Your task to perform on an android device: Add logitech g502 to the cart on walmart Image 0: 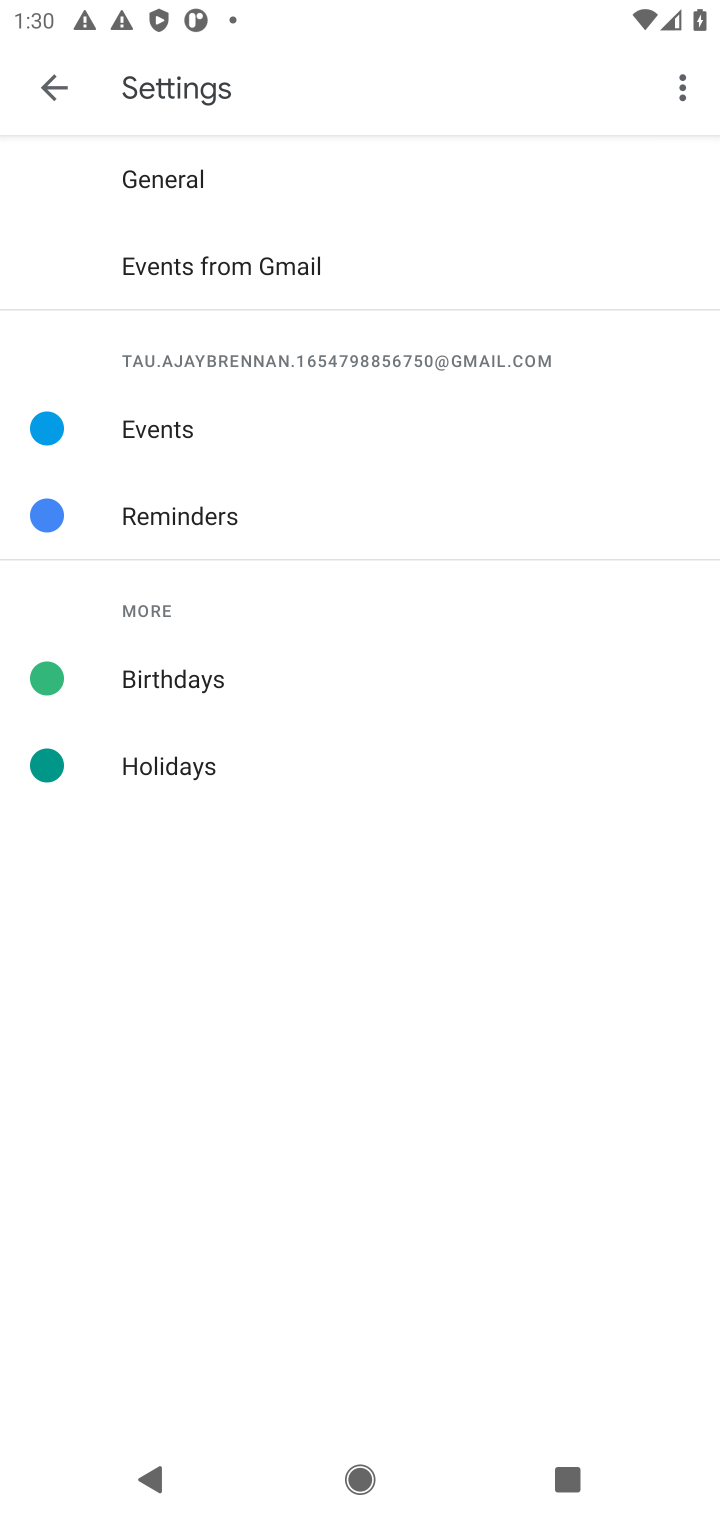
Step 0: press home button
Your task to perform on an android device: Add logitech g502 to the cart on walmart Image 1: 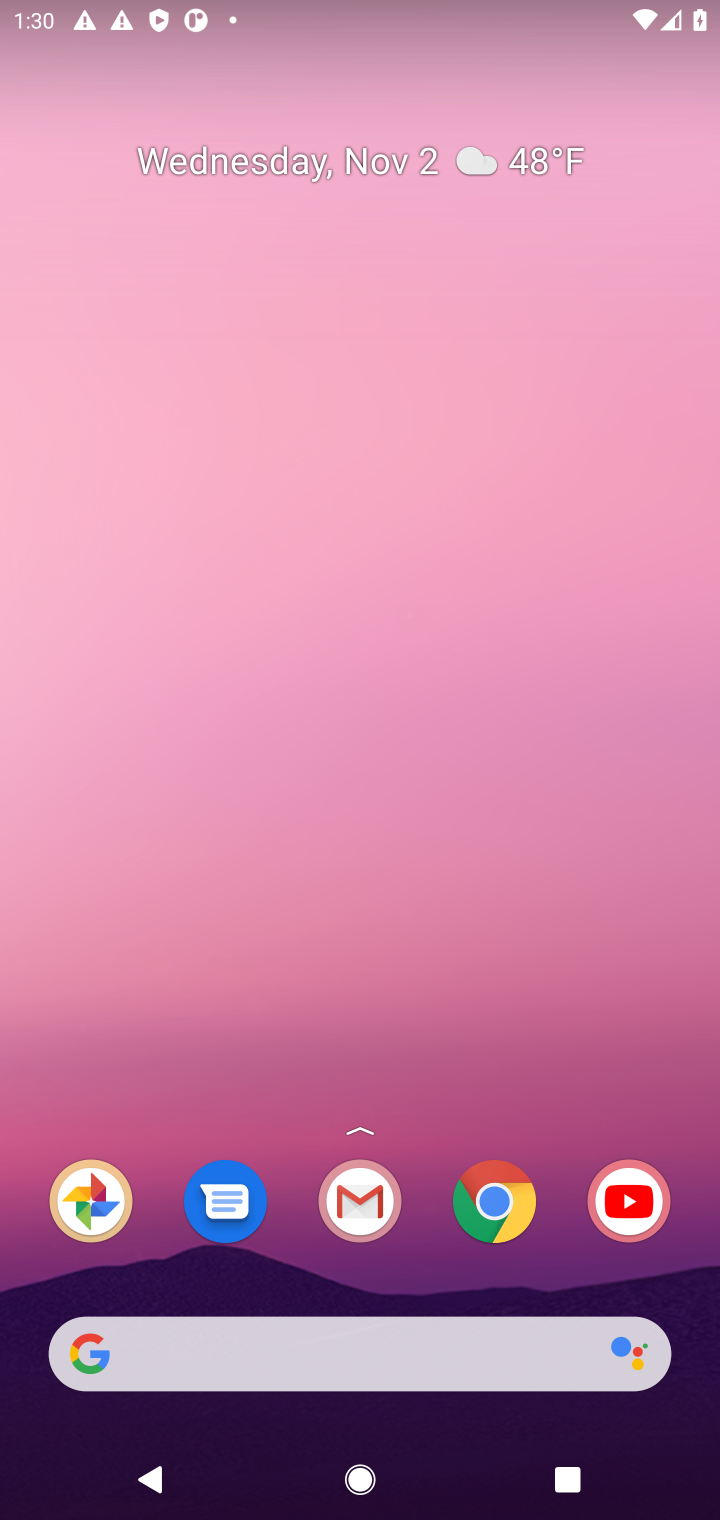
Step 1: click (497, 1191)
Your task to perform on an android device: Add logitech g502 to the cart on walmart Image 2: 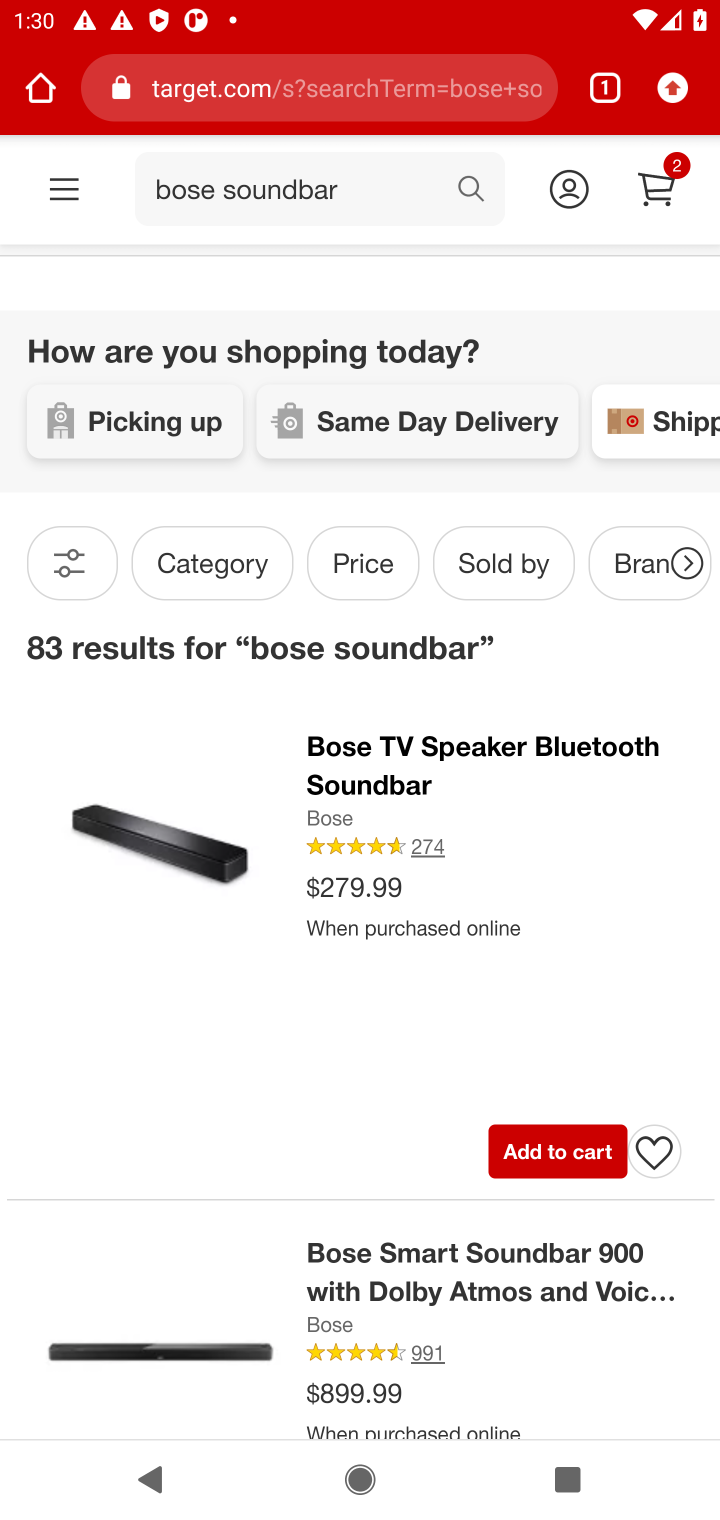
Step 2: click (338, 77)
Your task to perform on an android device: Add logitech g502 to the cart on walmart Image 3: 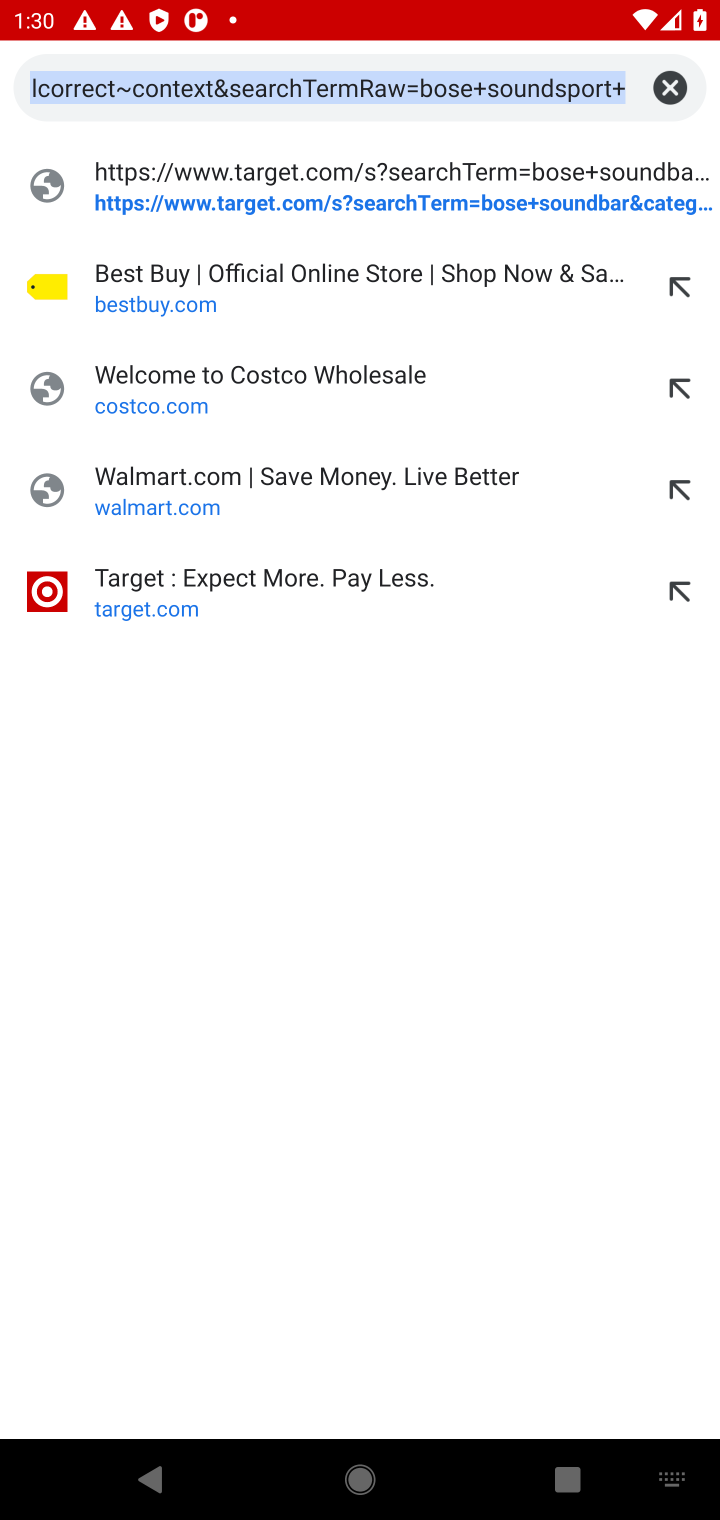
Step 3: click (226, 481)
Your task to perform on an android device: Add logitech g502 to the cart on walmart Image 4: 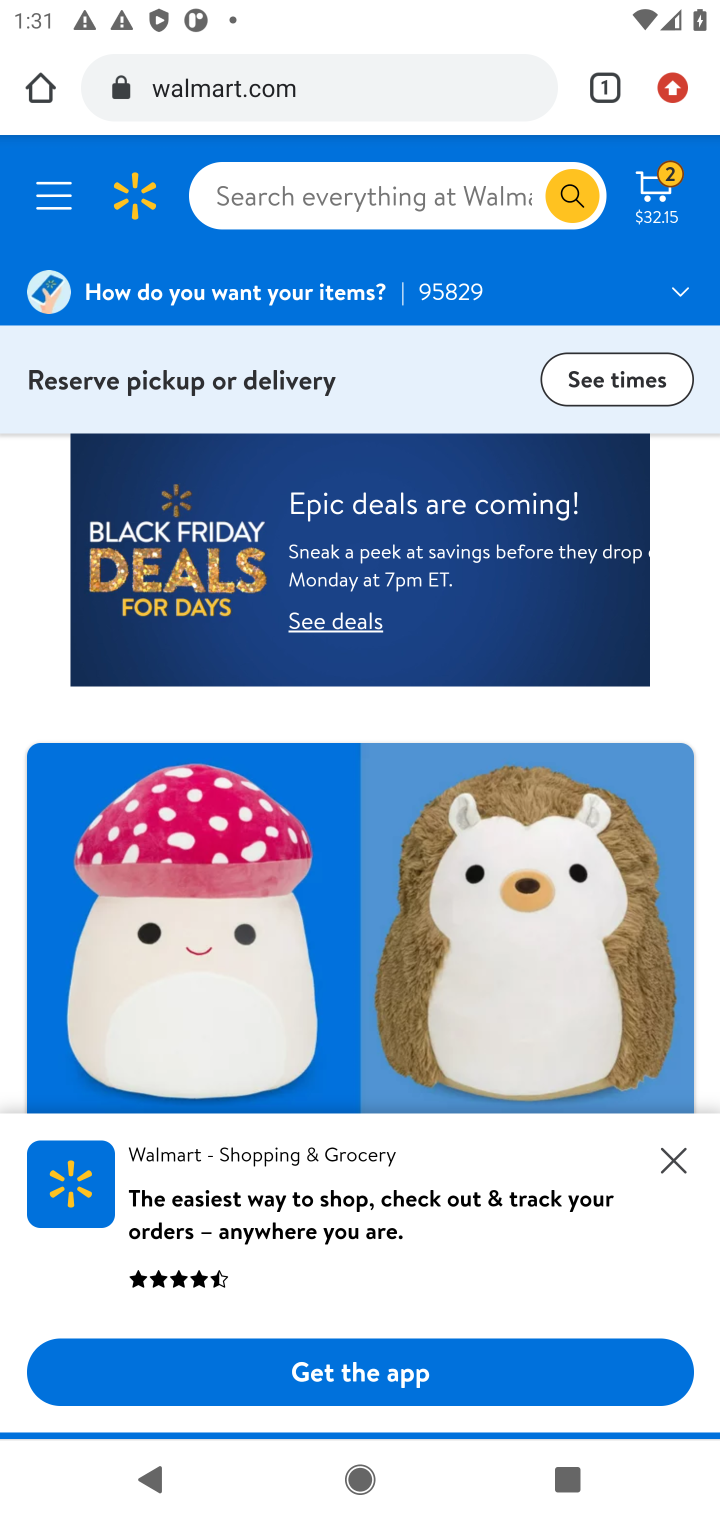
Step 4: click (448, 181)
Your task to perform on an android device: Add logitech g502 to the cart on walmart Image 5: 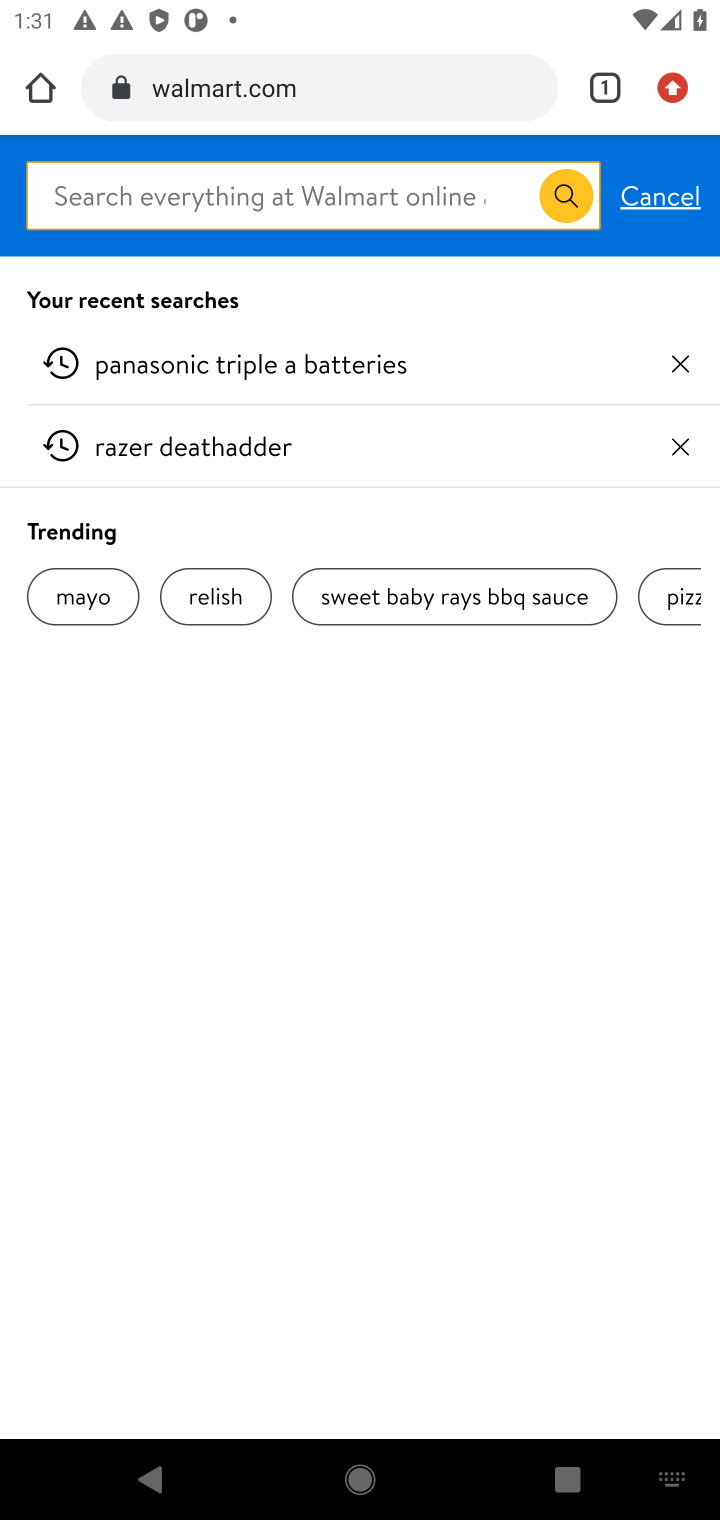
Step 5: type "logitech g502"
Your task to perform on an android device: Add logitech g502 to the cart on walmart Image 6: 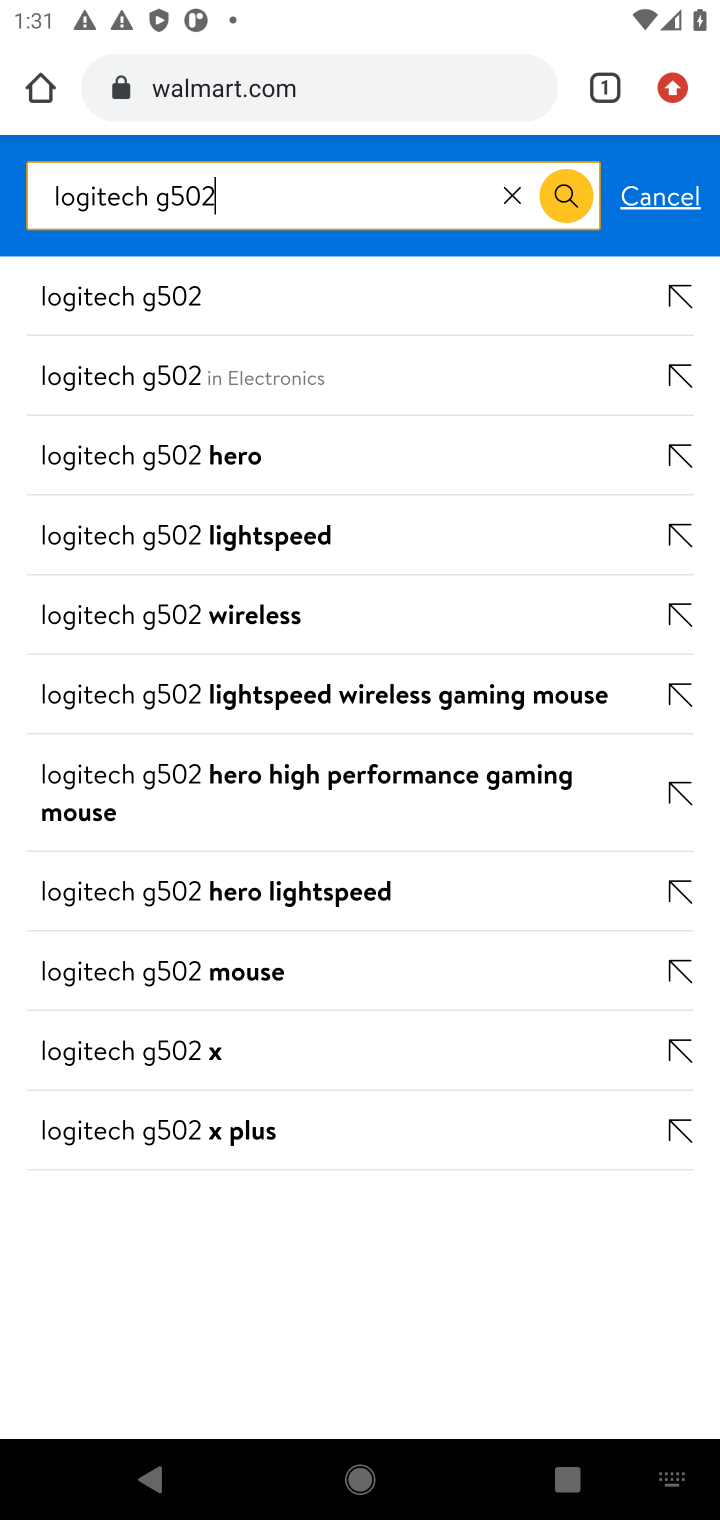
Step 6: click (65, 292)
Your task to perform on an android device: Add logitech g502 to the cart on walmart Image 7: 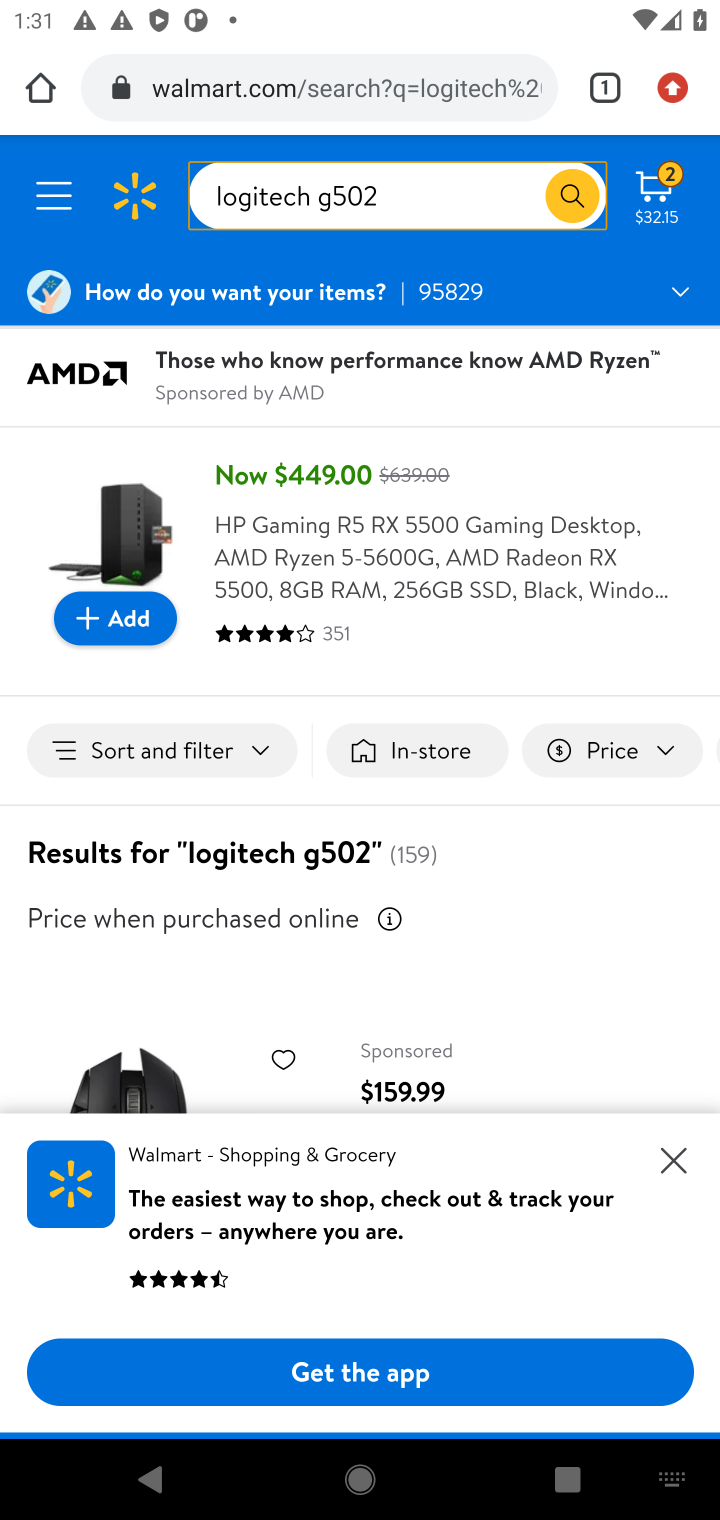
Step 7: drag from (539, 942) to (525, 529)
Your task to perform on an android device: Add logitech g502 to the cart on walmart Image 8: 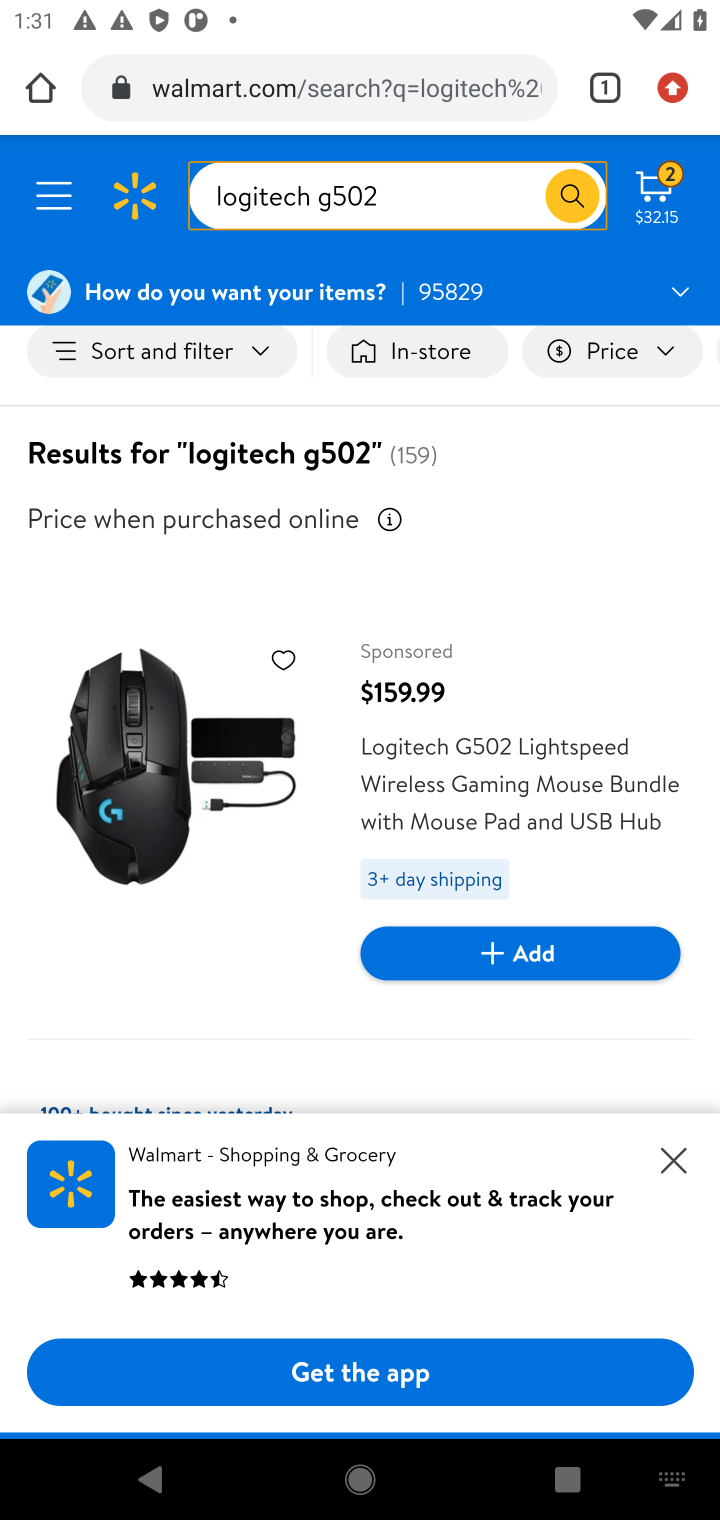
Step 8: click (167, 769)
Your task to perform on an android device: Add logitech g502 to the cart on walmart Image 9: 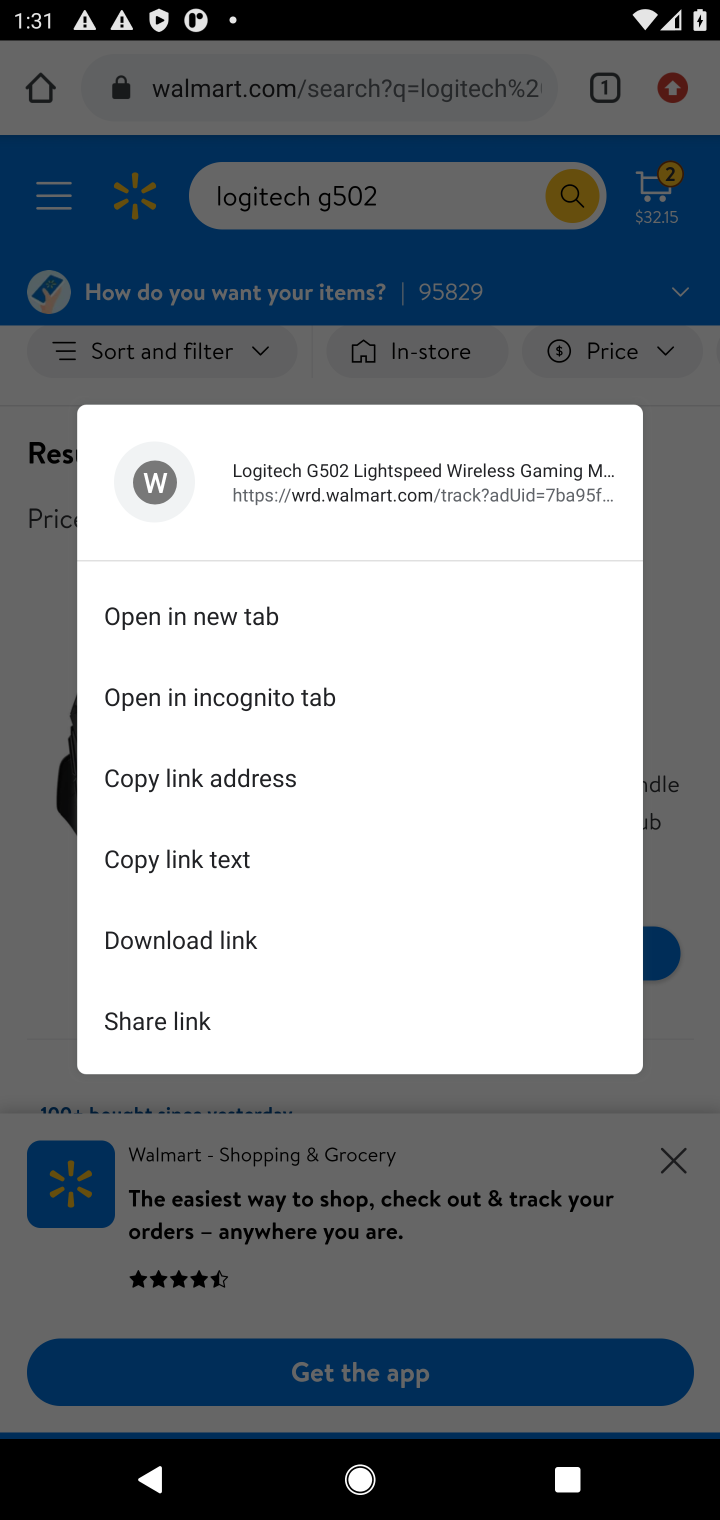
Step 9: drag from (503, 1126) to (594, 281)
Your task to perform on an android device: Add logitech g502 to the cart on walmart Image 10: 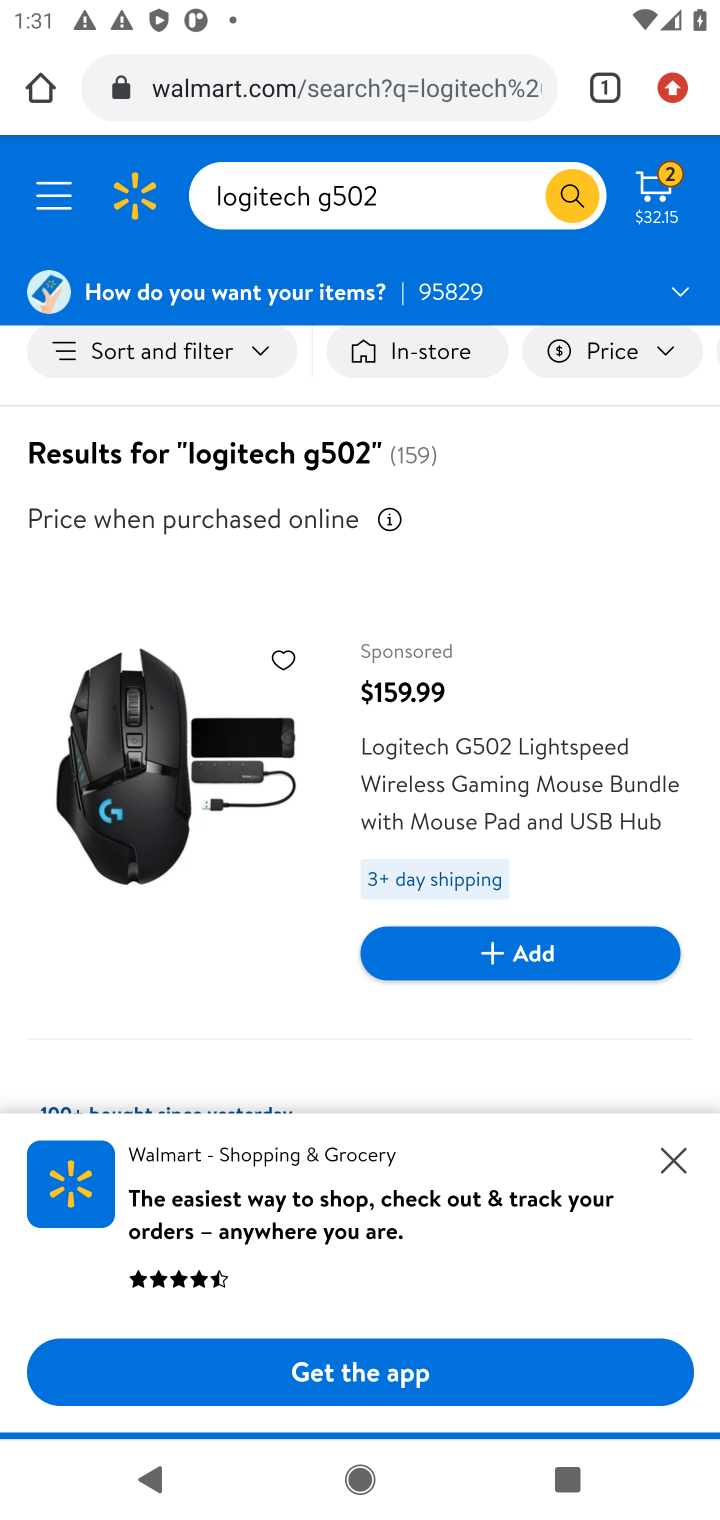
Step 10: click (594, 281)
Your task to perform on an android device: Add logitech g502 to the cart on walmart Image 11: 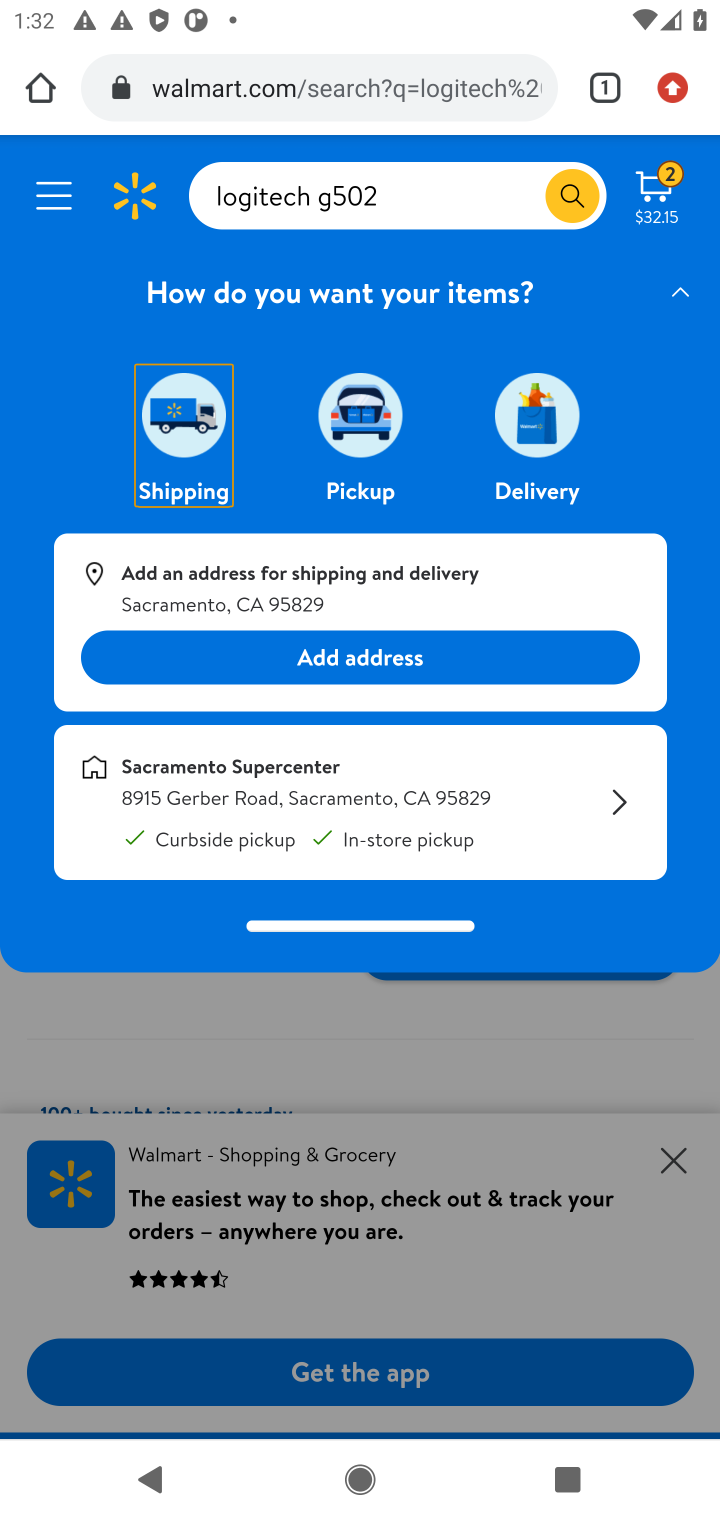
Step 11: click (675, 1152)
Your task to perform on an android device: Add logitech g502 to the cart on walmart Image 12: 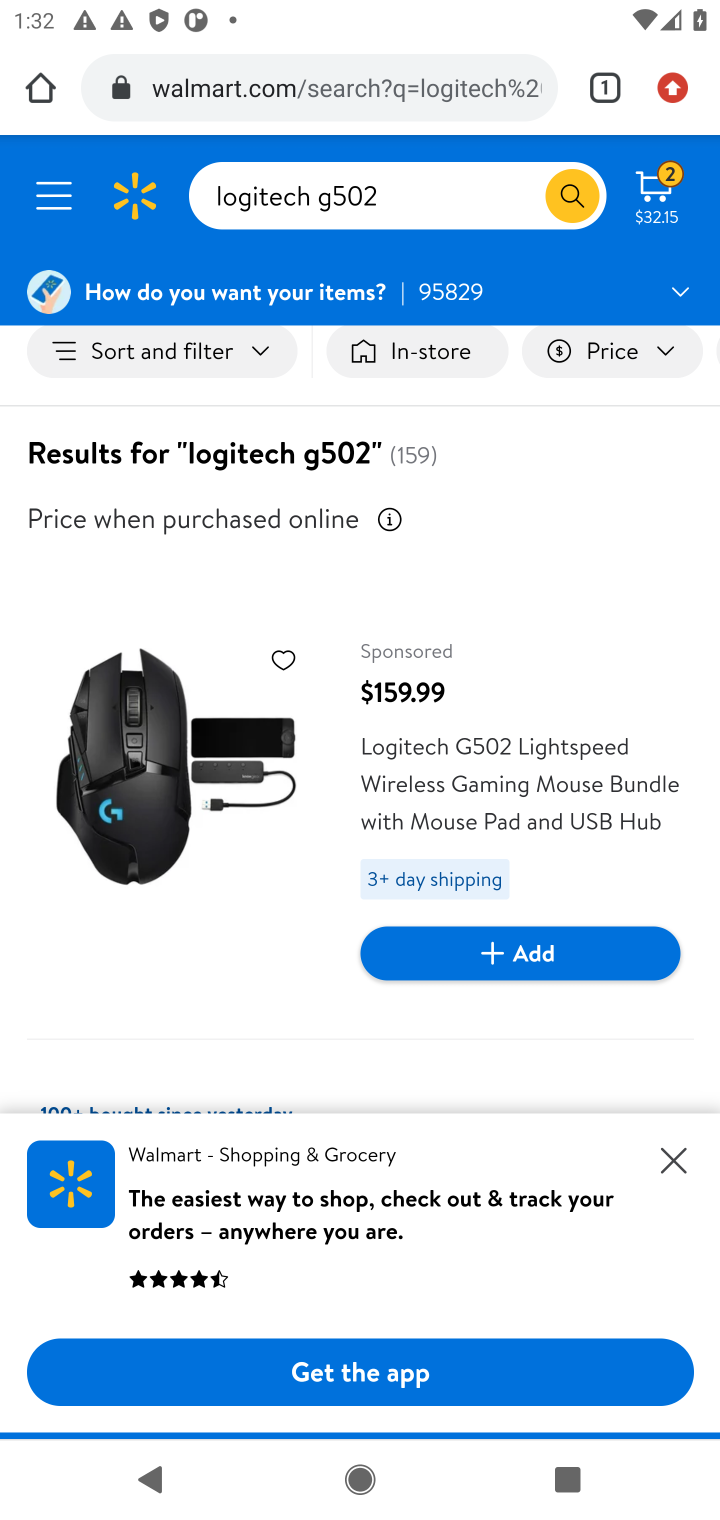
Step 12: click (676, 1149)
Your task to perform on an android device: Add logitech g502 to the cart on walmart Image 13: 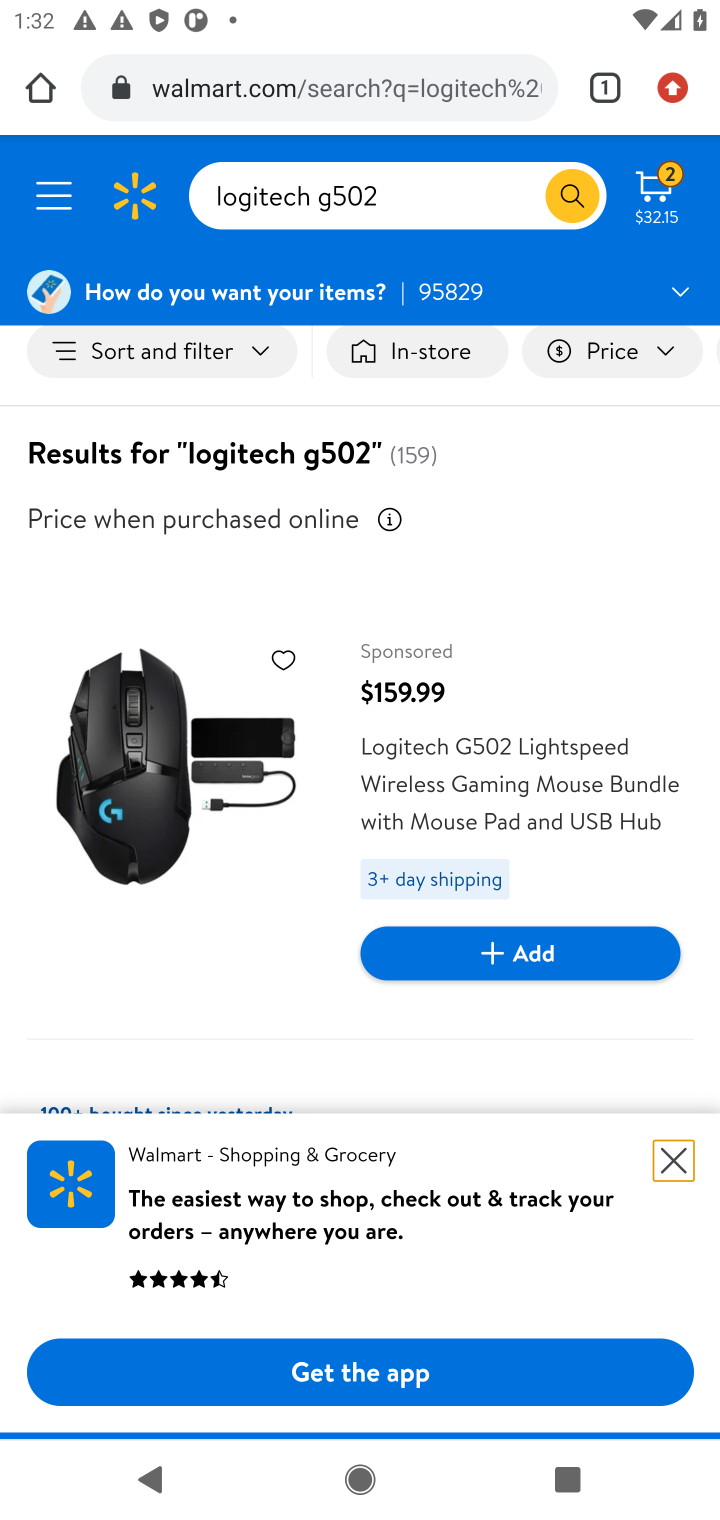
Step 13: click (539, 951)
Your task to perform on an android device: Add logitech g502 to the cart on walmart Image 14: 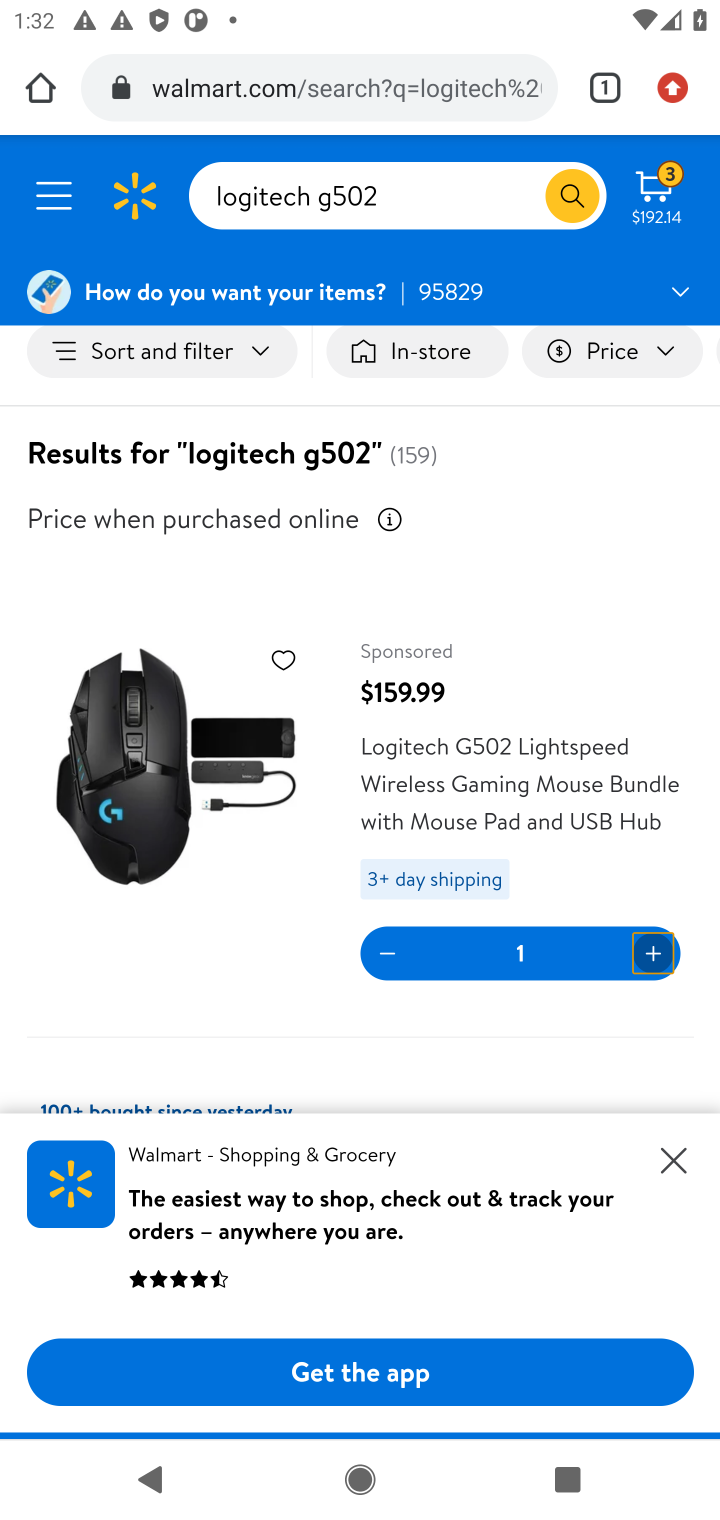
Step 14: click (668, 1161)
Your task to perform on an android device: Add logitech g502 to the cart on walmart Image 15: 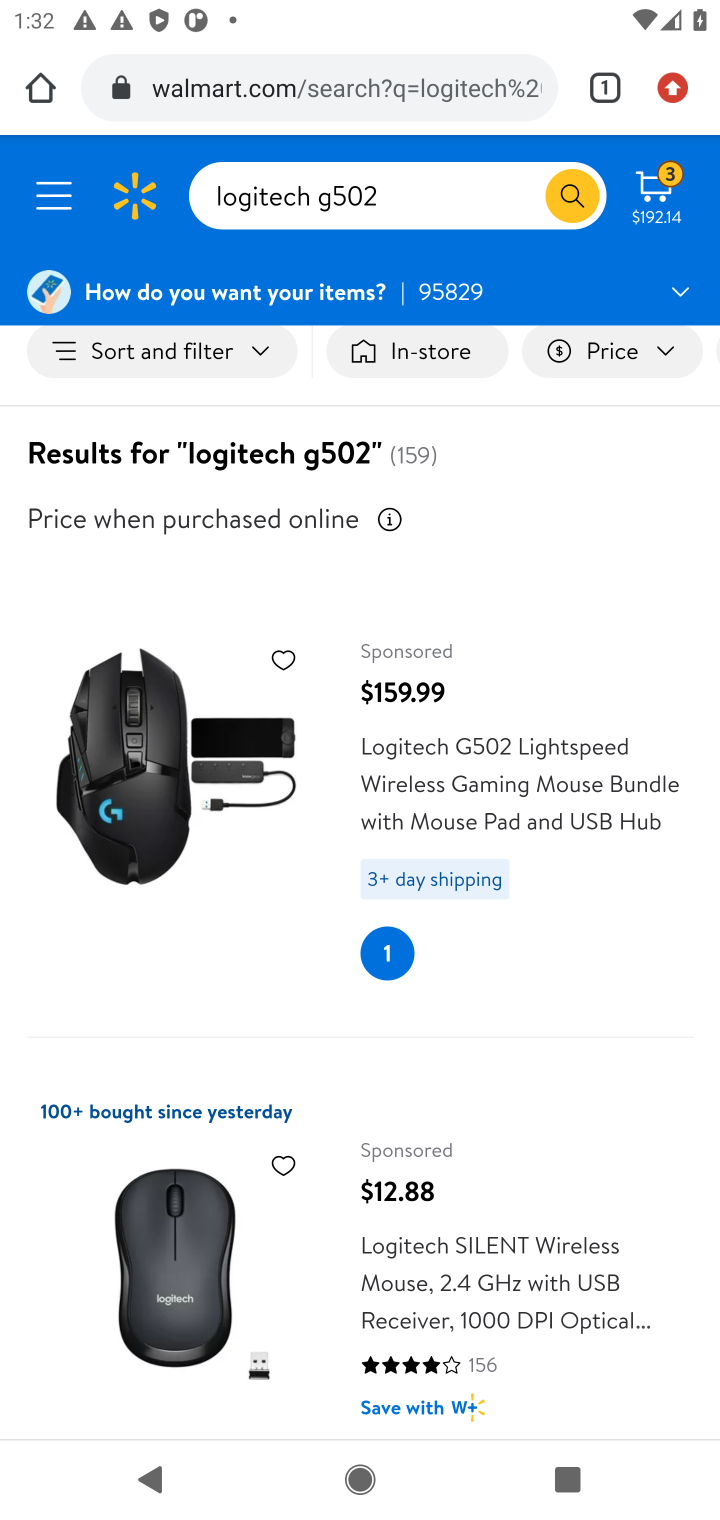
Step 15: drag from (458, 1129) to (439, 1204)
Your task to perform on an android device: Add logitech g502 to the cart on walmart Image 16: 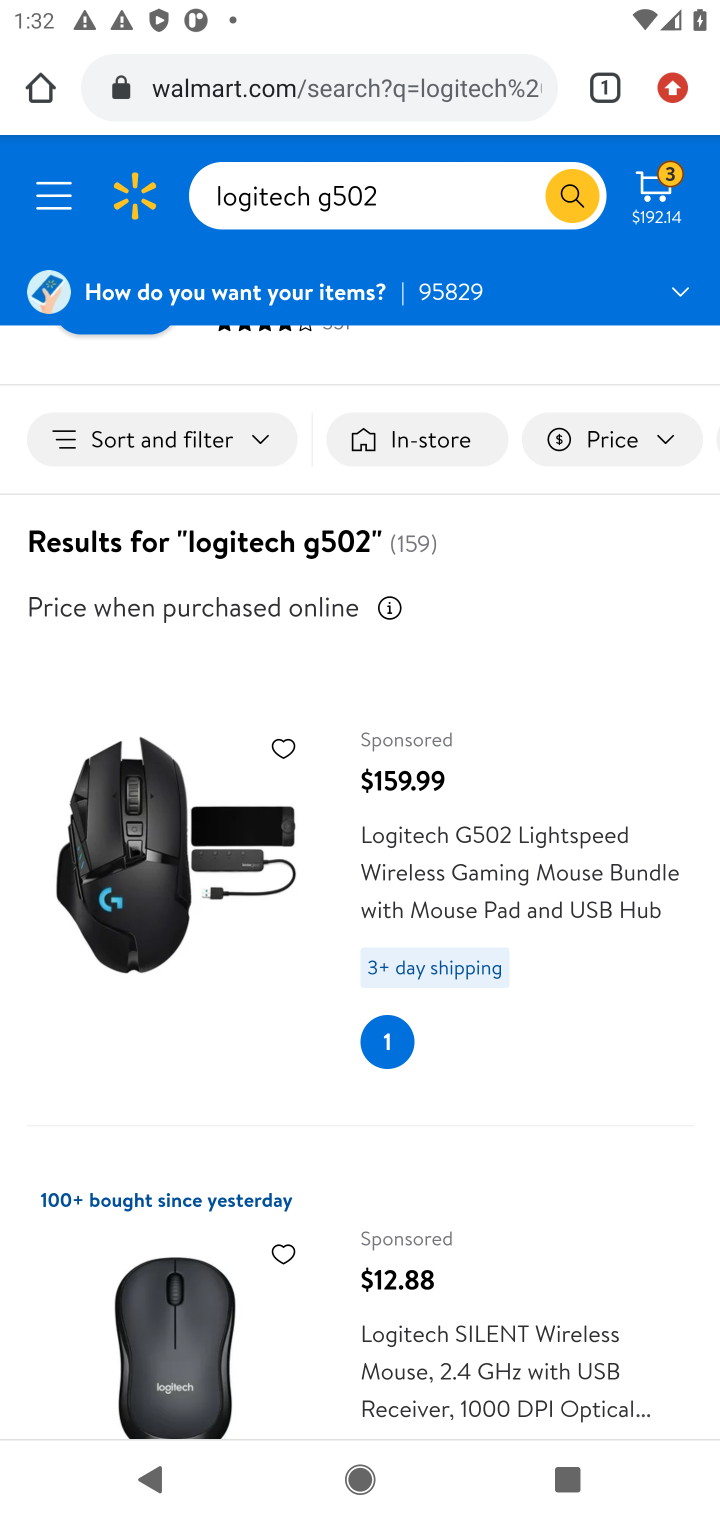
Step 16: click (147, 861)
Your task to perform on an android device: Add logitech g502 to the cart on walmart Image 17: 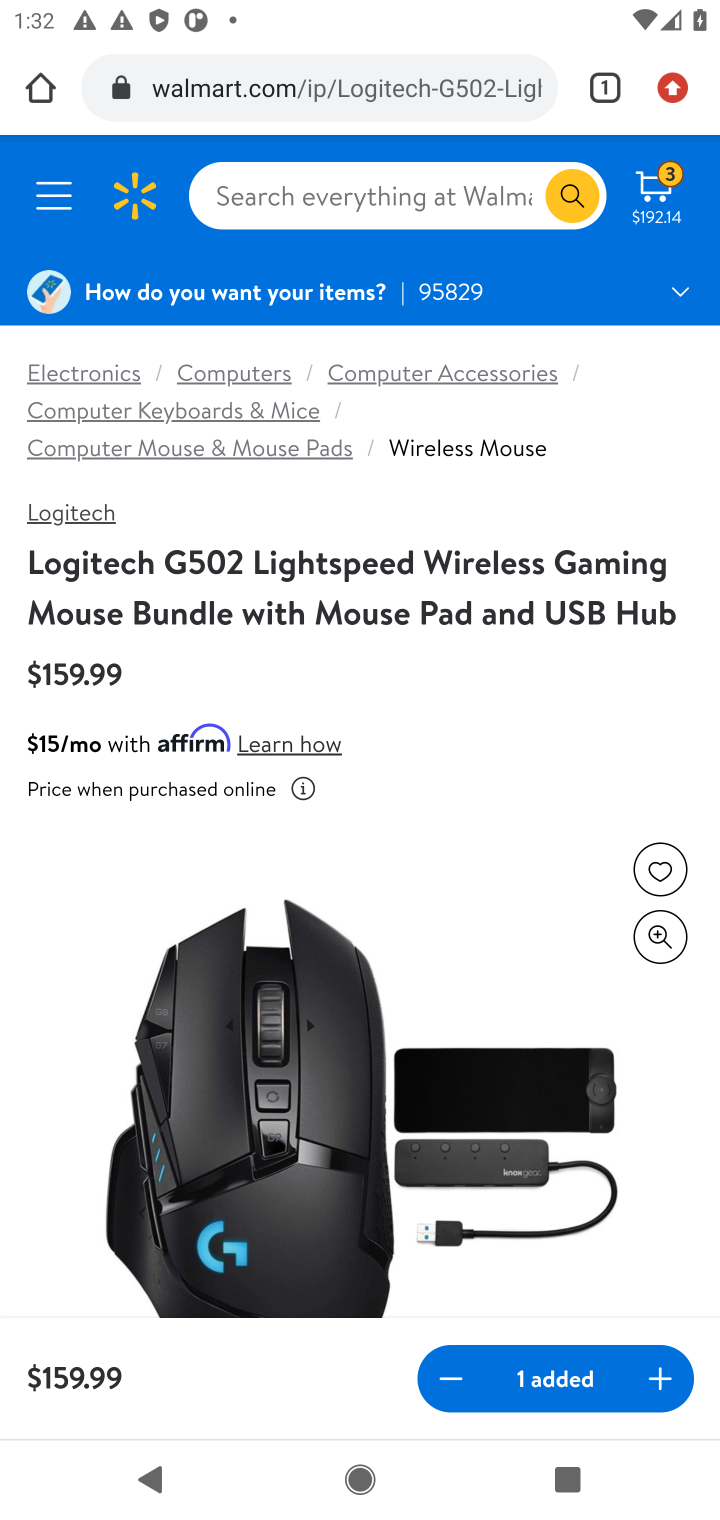
Step 17: drag from (434, 1120) to (486, 359)
Your task to perform on an android device: Add logitech g502 to the cart on walmart Image 18: 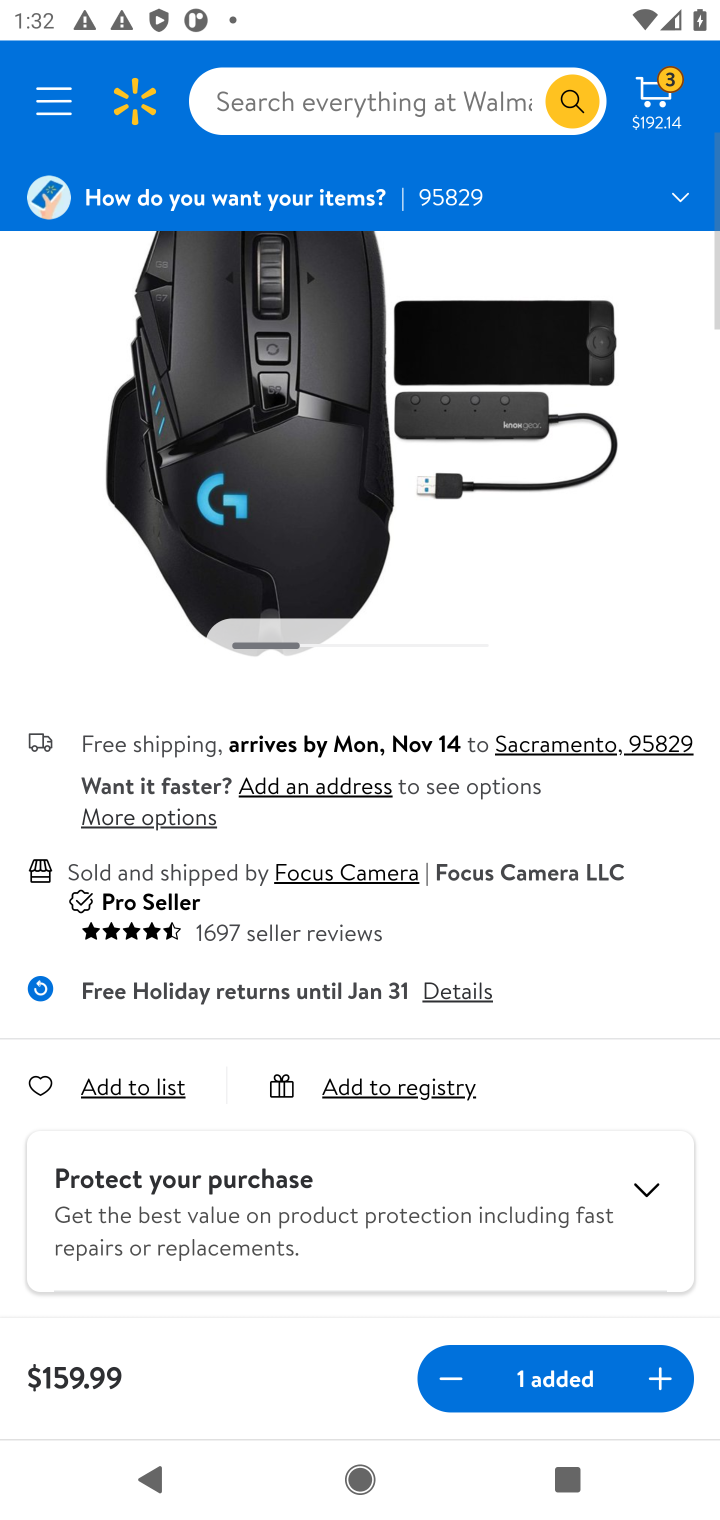
Step 18: drag from (575, 1038) to (581, 347)
Your task to perform on an android device: Add logitech g502 to the cart on walmart Image 19: 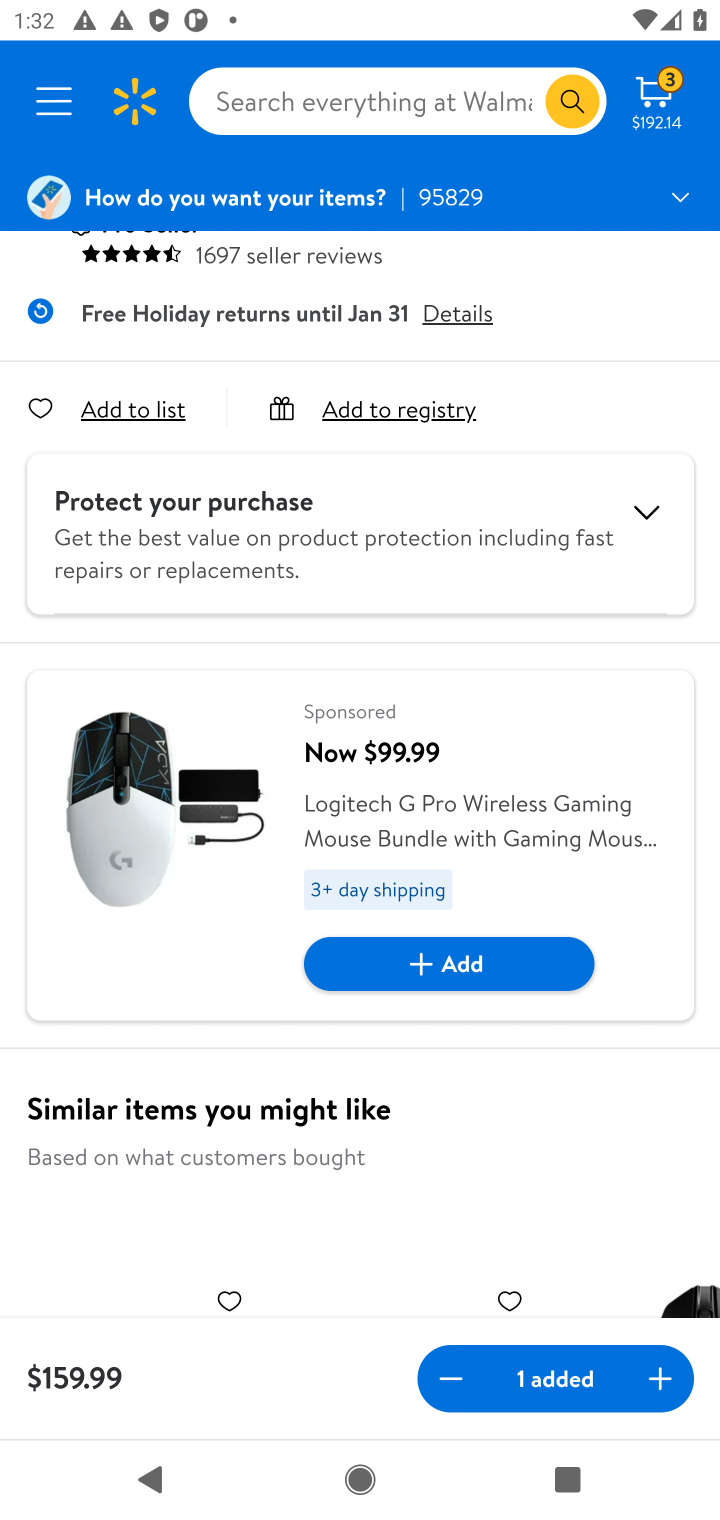
Step 19: drag from (484, 849) to (485, 1086)
Your task to perform on an android device: Add logitech g502 to the cart on walmart Image 20: 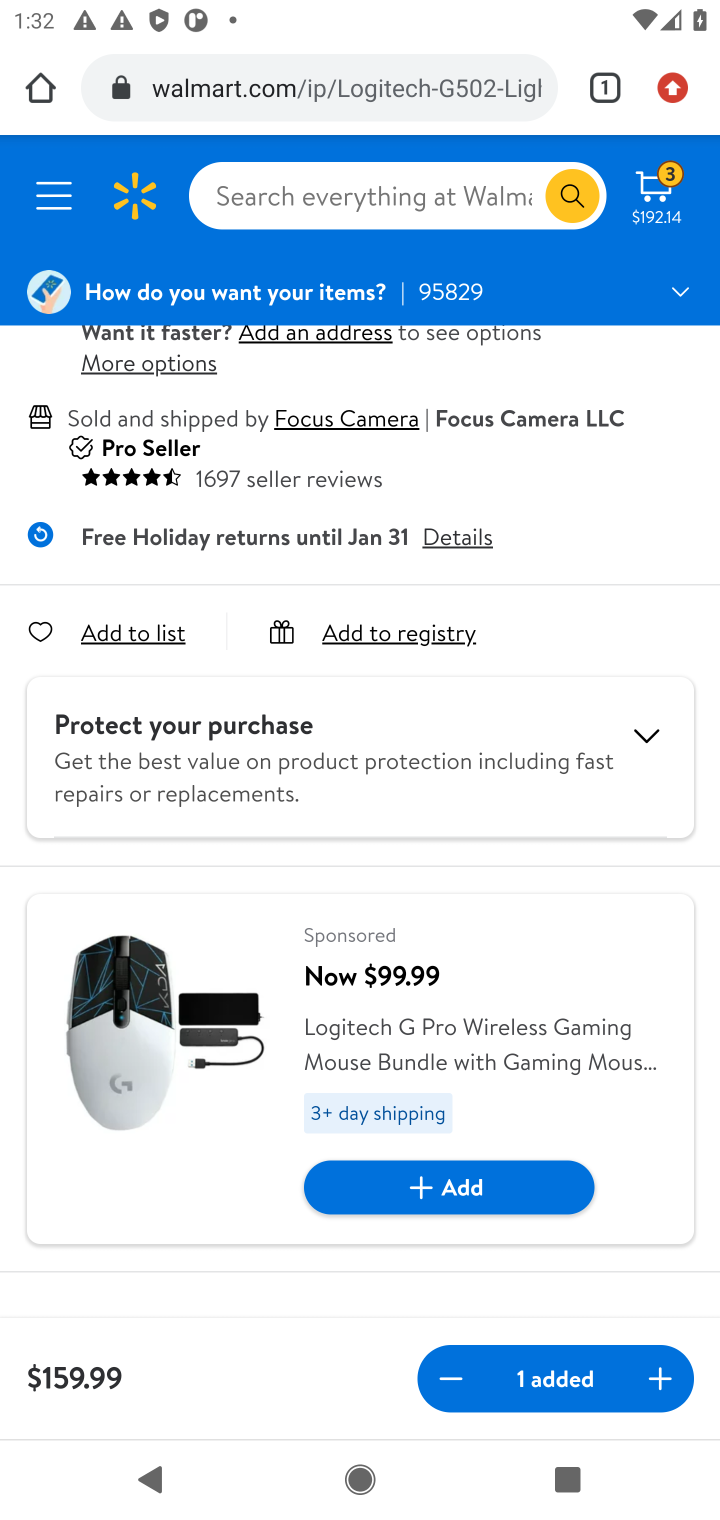
Step 20: click (144, 635)
Your task to perform on an android device: Add logitech g502 to the cart on walmart Image 21: 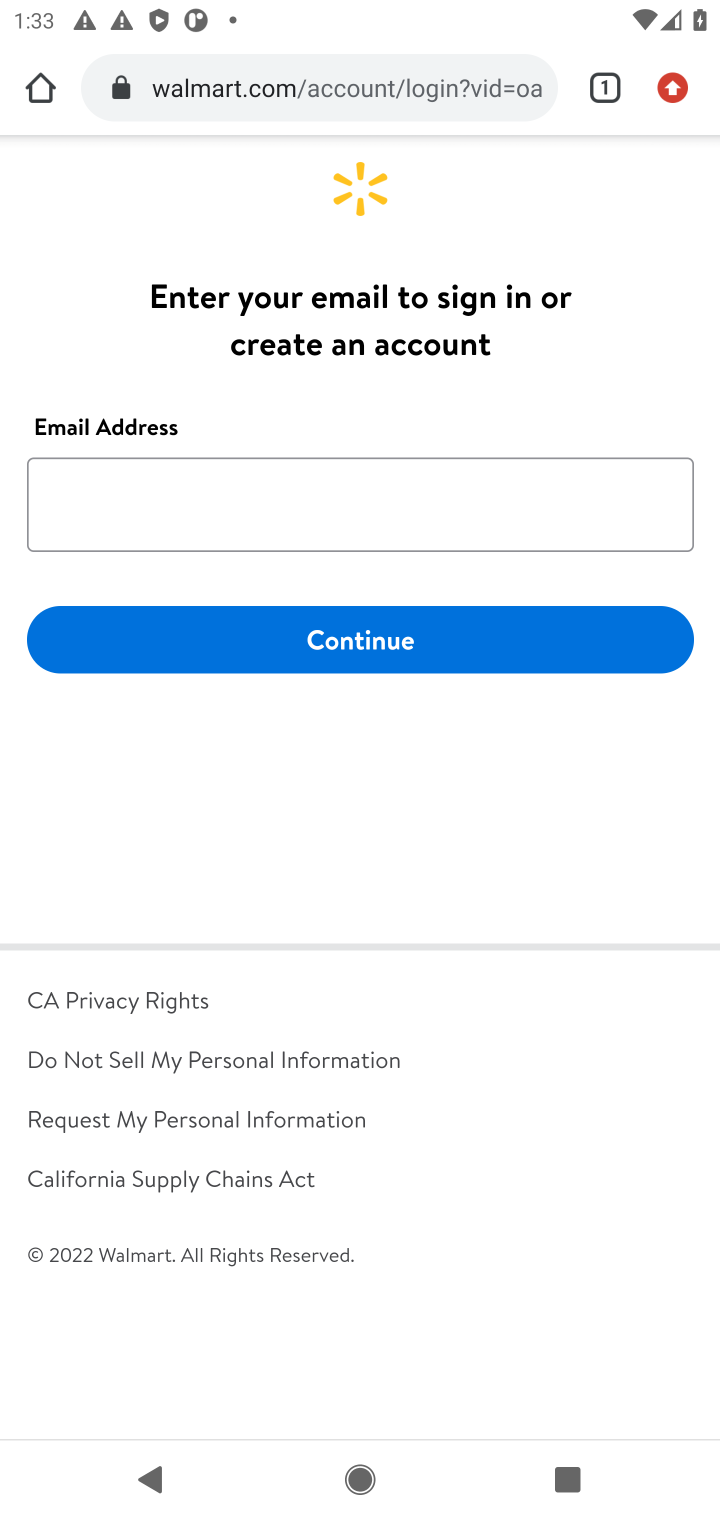
Step 21: task complete